Your task to perform on an android device: Go to CNN.com Image 0: 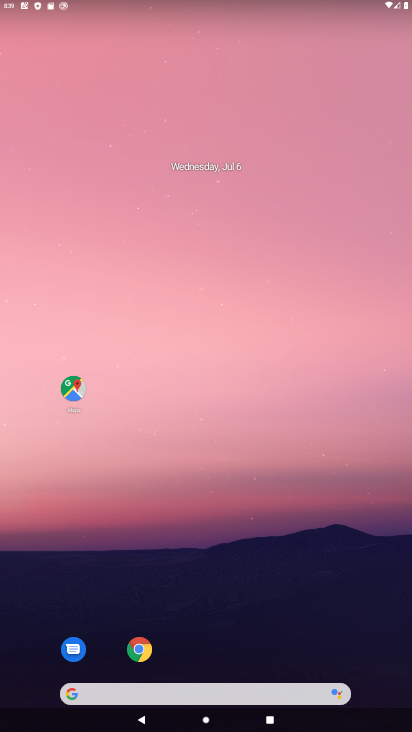
Step 0: drag from (214, 656) to (213, 50)
Your task to perform on an android device: Go to CNN.com Image 1: 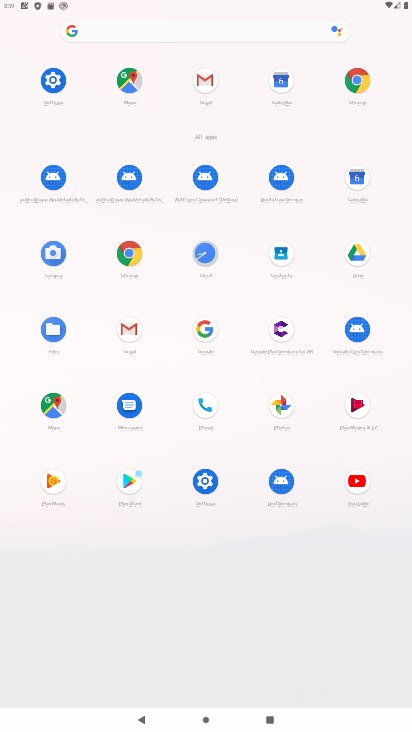
Step 1: click (359, 74)
Your task to perform on an android device: Go to CNN.com Image 2: 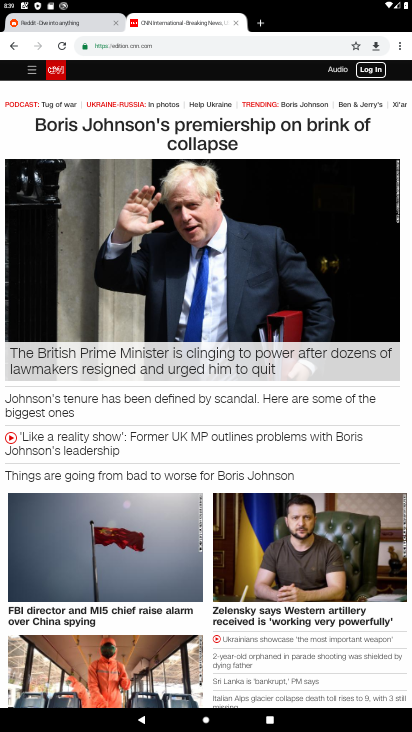
Step 2: task complete